Your task to perform on an android device: see creations saved in the google photos Image 0: 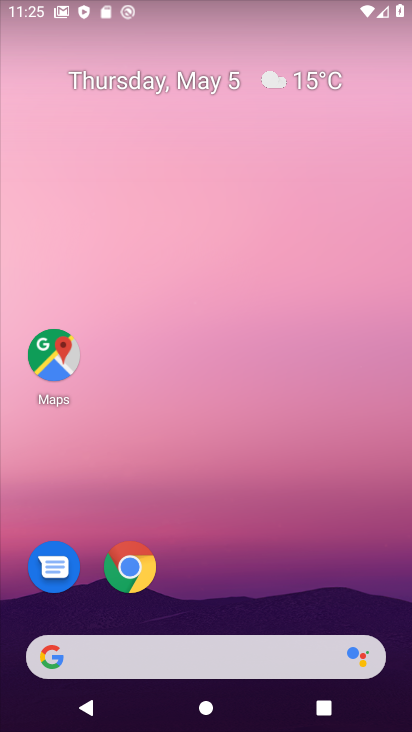
Step 0: drag from (292, 586) to (281, 30)
Your task to perform on an android device: see creations saved in the google photos Image 1: 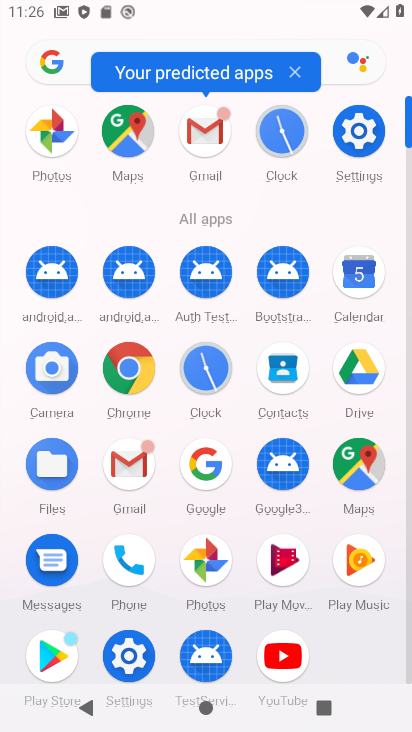
Step 1: click (200, 582)
Your task to perform on an android device: see creations saved in the google photos Image 2: 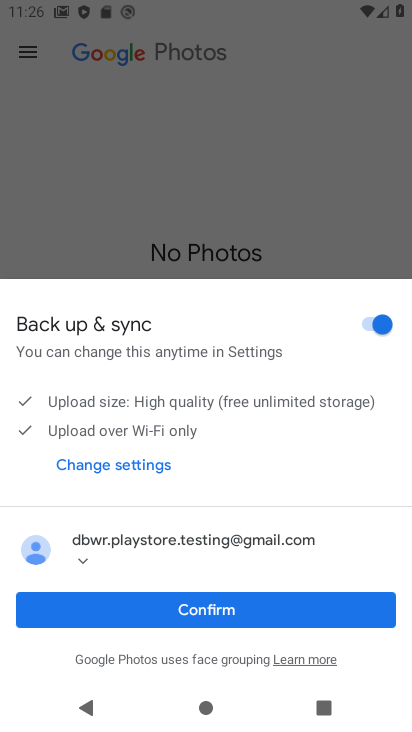
Step 2: click (184, 604)
Your task to perform on an android device: see creations saved in the google photos Image 3: 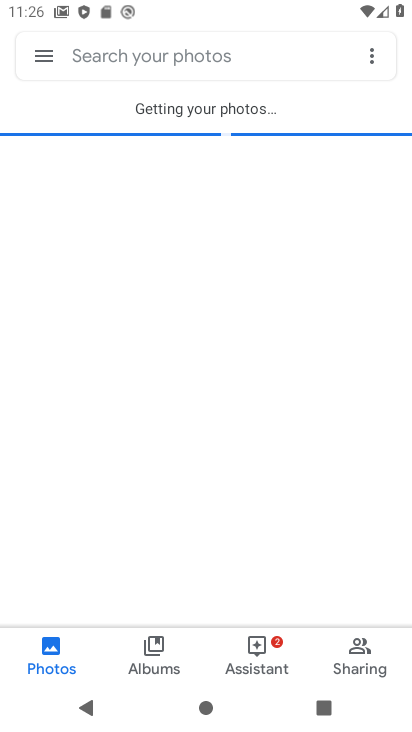
Step 3: click (147, 47)
Your task to perform on an android device: see creations saved in the google photos Image 4: 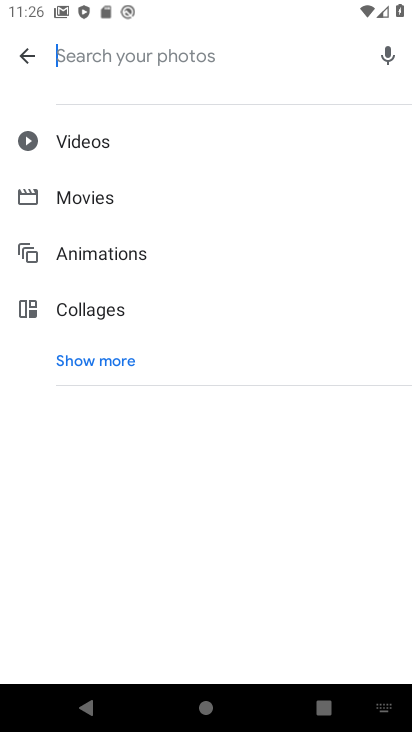
Step 4: click (89, 367)
Your task to perform on an android device: see creations saved in the google photos Image 5: 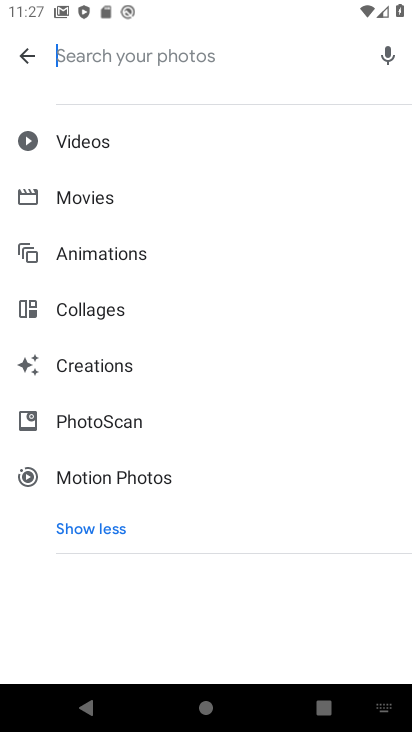
Step 5: click (134, 363)
Your task to perform on an android device: see creations saved in the google photos Image 6: 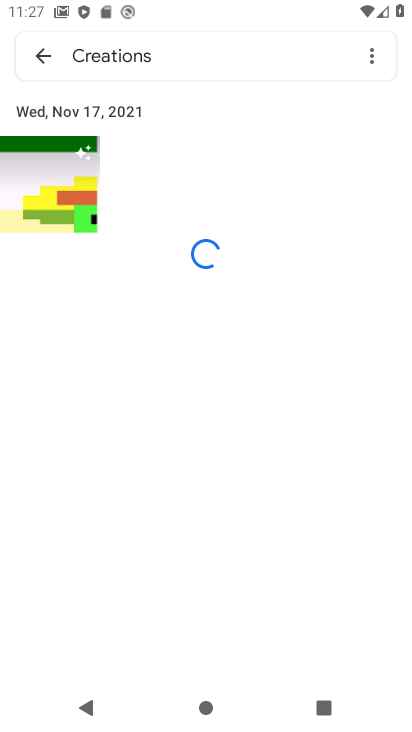
Step 6: task complete